Your task to perform on an android device: Is it going to rain tomorrow? Image 0: 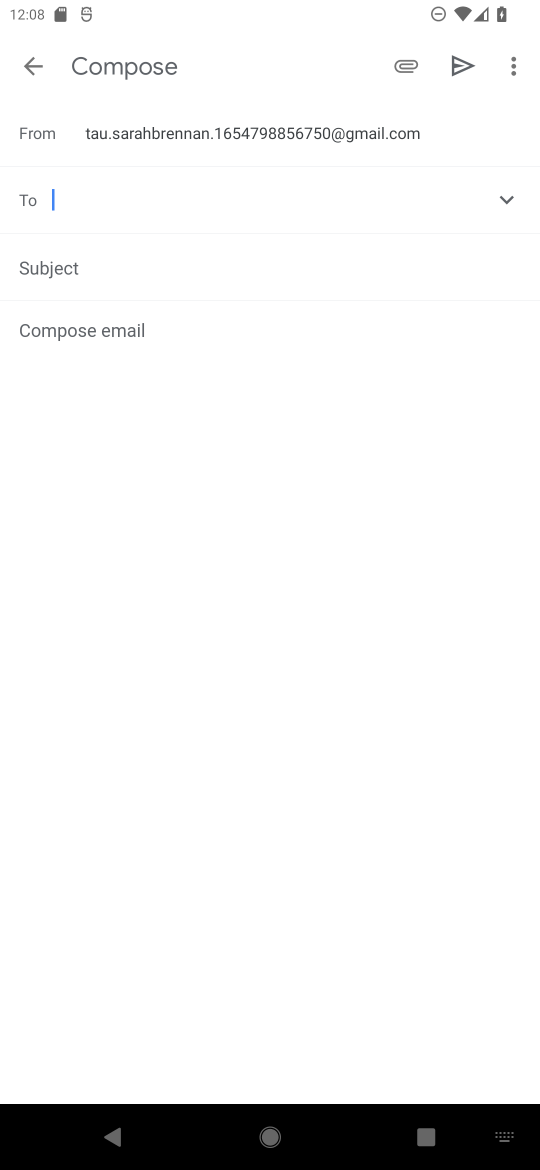
Step 0: press home button
Your task to perform on an android device: Is it going to rain tomorrow? Image 1: 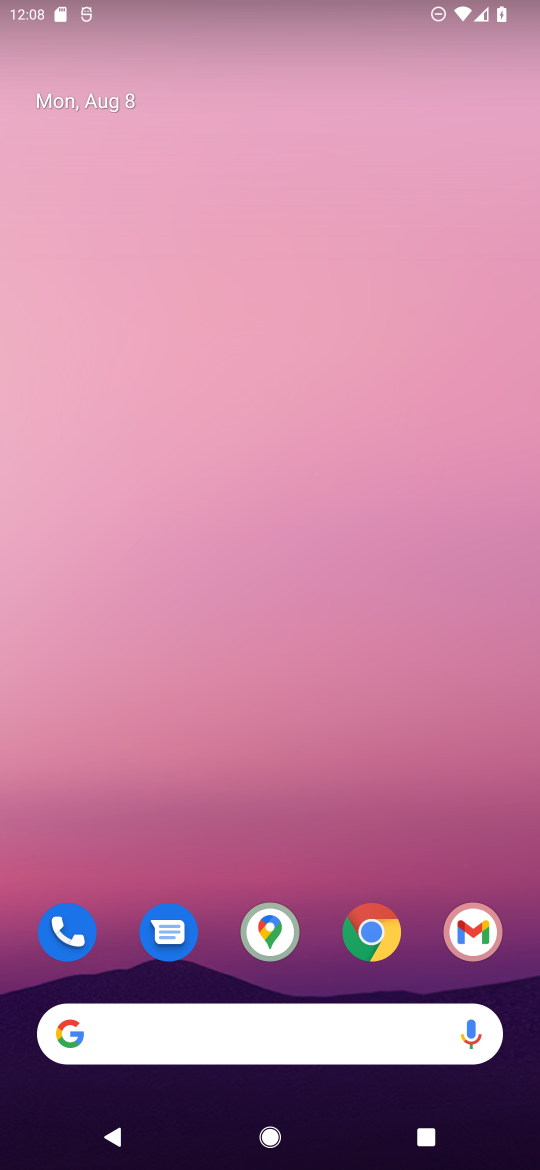
Step 1: click (250, 1054)
Your task to perform on an android device: Is it going to rain tomorrow? Image 2: 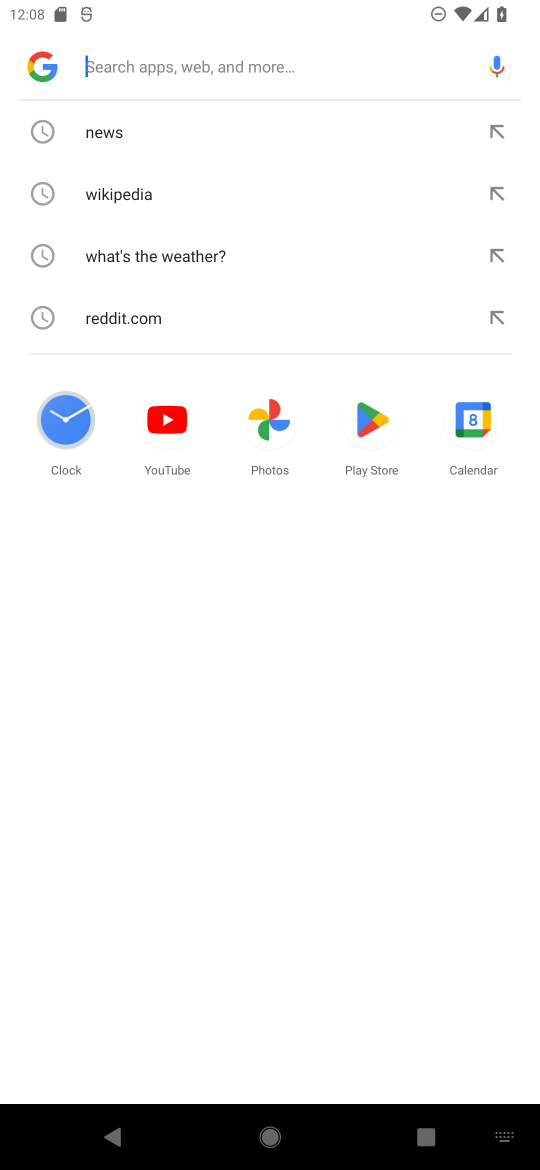
Step 2: click (166, 243)
Your task to perform on an android device: Is it going to rain tomorrow? Image 3: 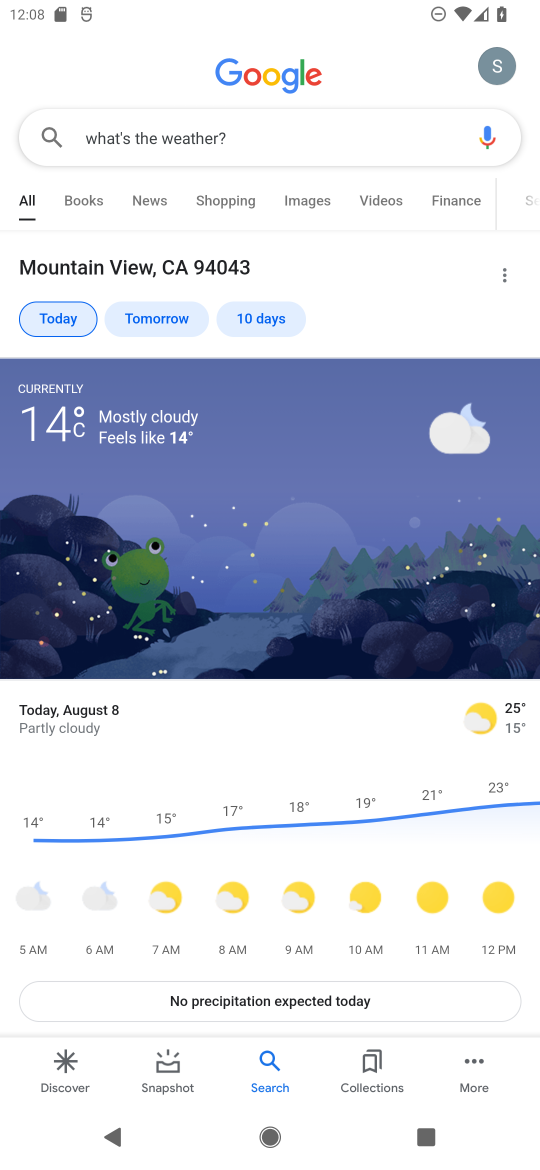
Step 3: task complete